Your task to perform on an android device: Open the phone app and click the voicemail tab. Image 0: 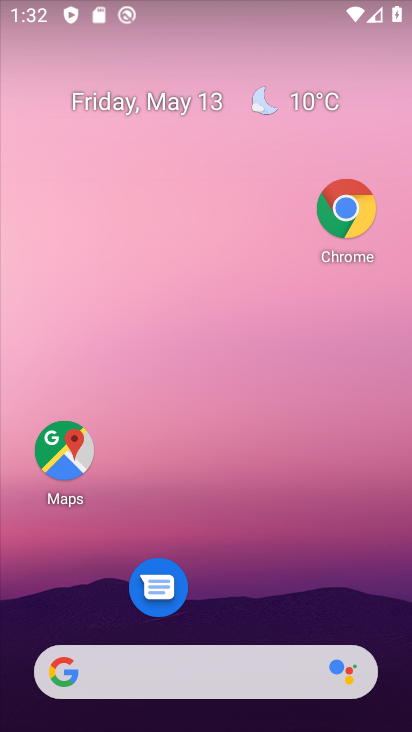
Step 0: drag from (278, 598) to (268, 147)
Your task to perform on an android device: Open the phone app and click the voicemail tab. Image 1: 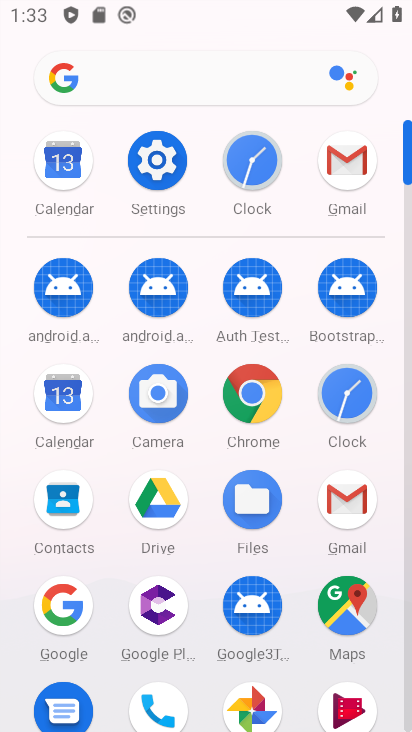
Step 1: click (168, 703)
Your task to perform on an android device: Open the phone app and click the voicemail tab. Image 2: 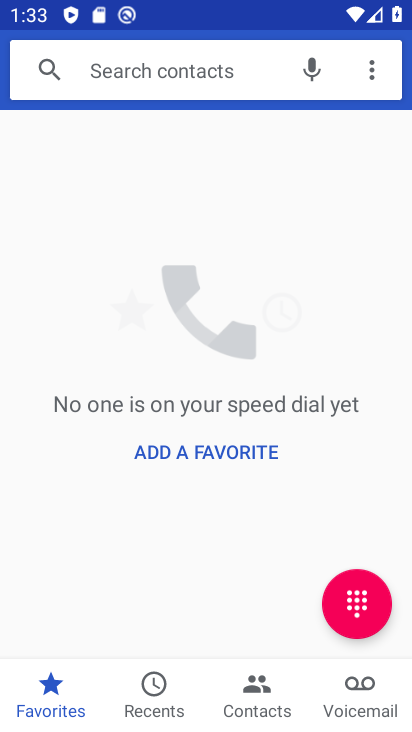
Step 2: click (356, 703)
Your task to perform on an android device: Open the phone app and click the voicemail tab. Image 3: 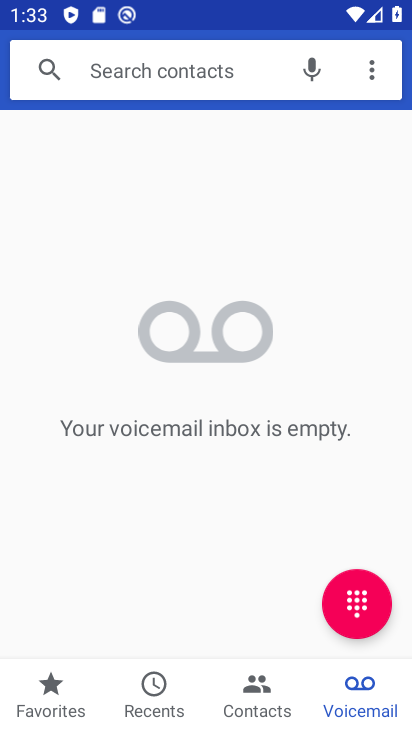
Step 3: task complete